Your task to perform on an android device: delete a single message in the gmail app Image 0: 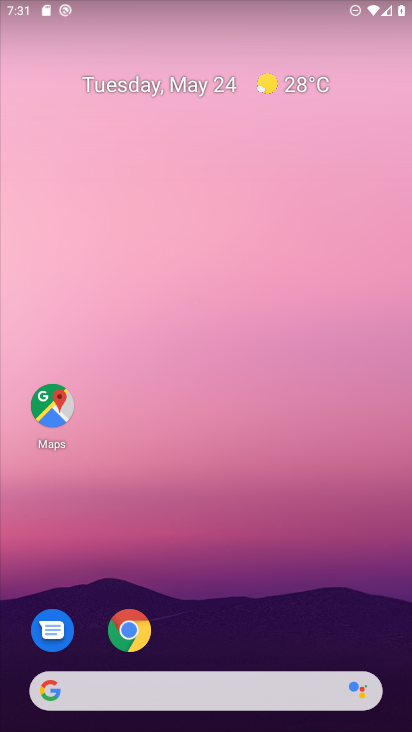
Step 0: press home button
Your task to perform on an android device: delete a single message in the gmail app Image 1: 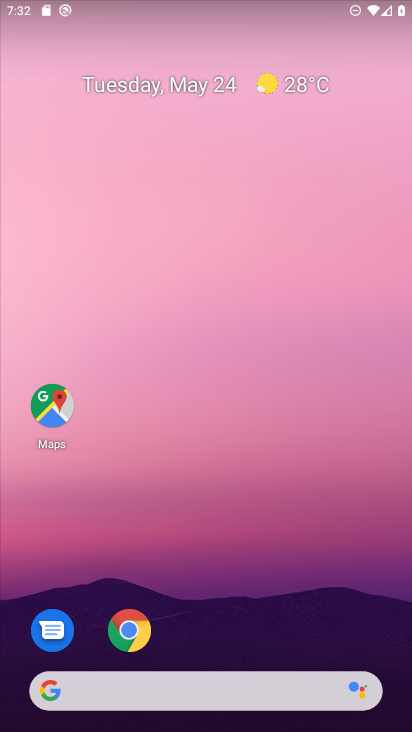
Step 1: drag from (201, 708) to (259, 138)
Your task to perform on an android device: delete a single message in the gmail app Image 2: 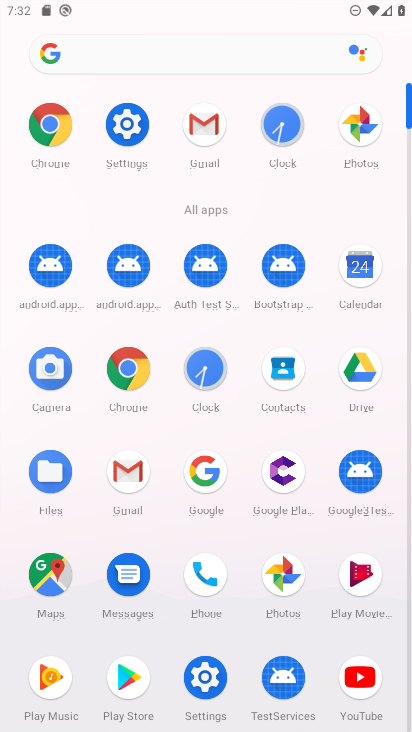
Step 2: click (198, 131)
Your task to perform on an android device: delete a single message in the gmail app Image 3: 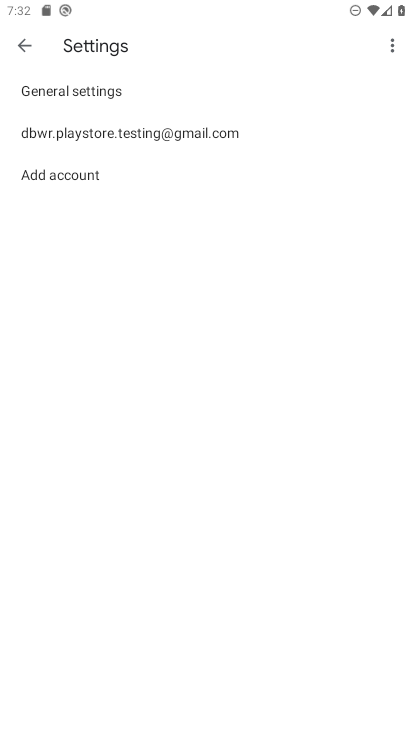
Step 3: click (126, 136)
Your task to perform on an android device: delete a single message in the gmail app Image 4: 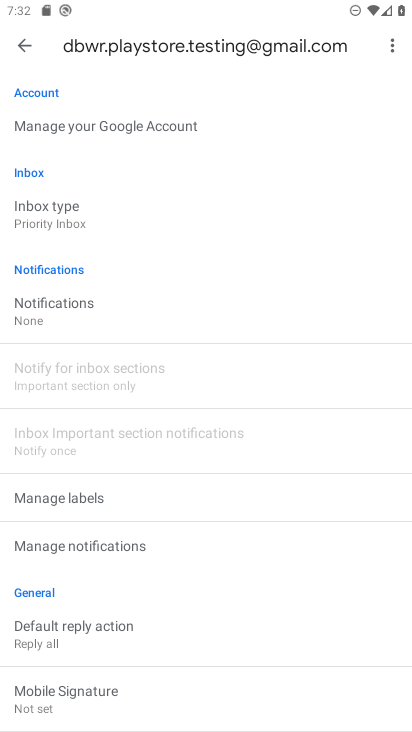
Step 4: click (18, 58)
Your task to perform on an android device: delete a single message in the gmail app Image 5: 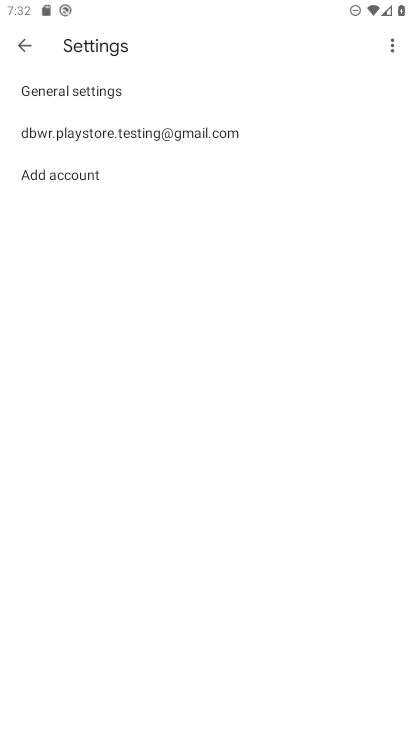
Step 5: click (20, 59)
Your task to perform on an android device: delete a single message in the gmail app Image 6: 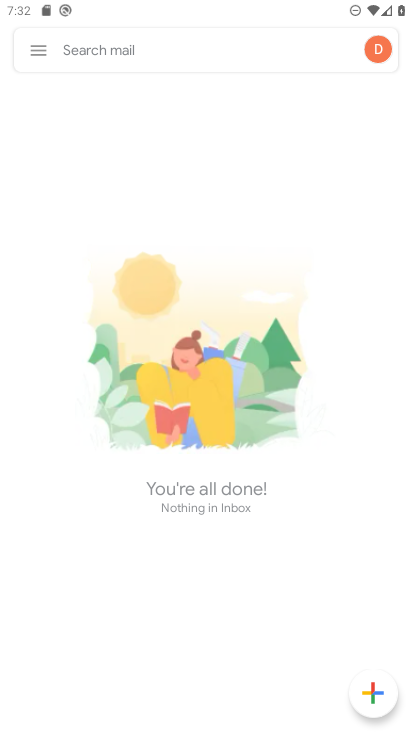
Step 6: click (29, 60)
Your task to perform on an android device: delete a single message in the gmail app Image 7: 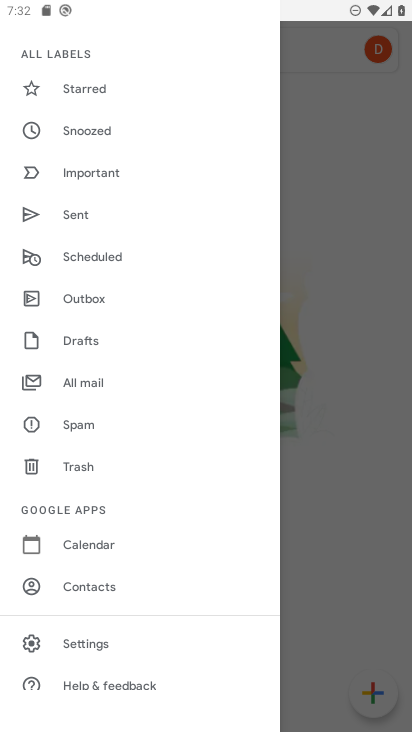
Step 7: click (124, 378)
Your task to perform on an android device: delete a single message in the gmail app Image 8: 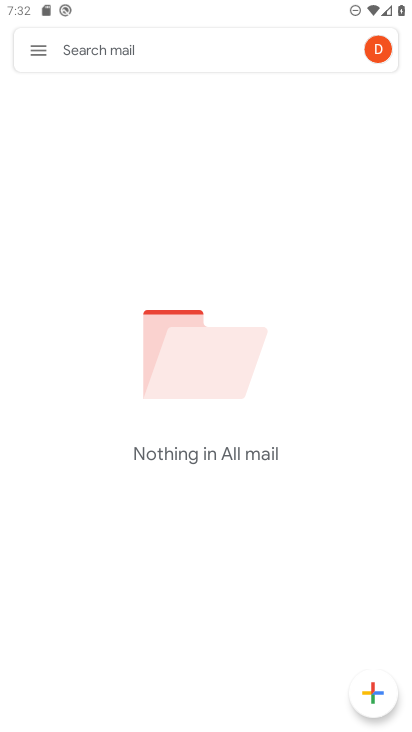
Step 8: task complete